Your task to perform on an android device: check android version Image 0: 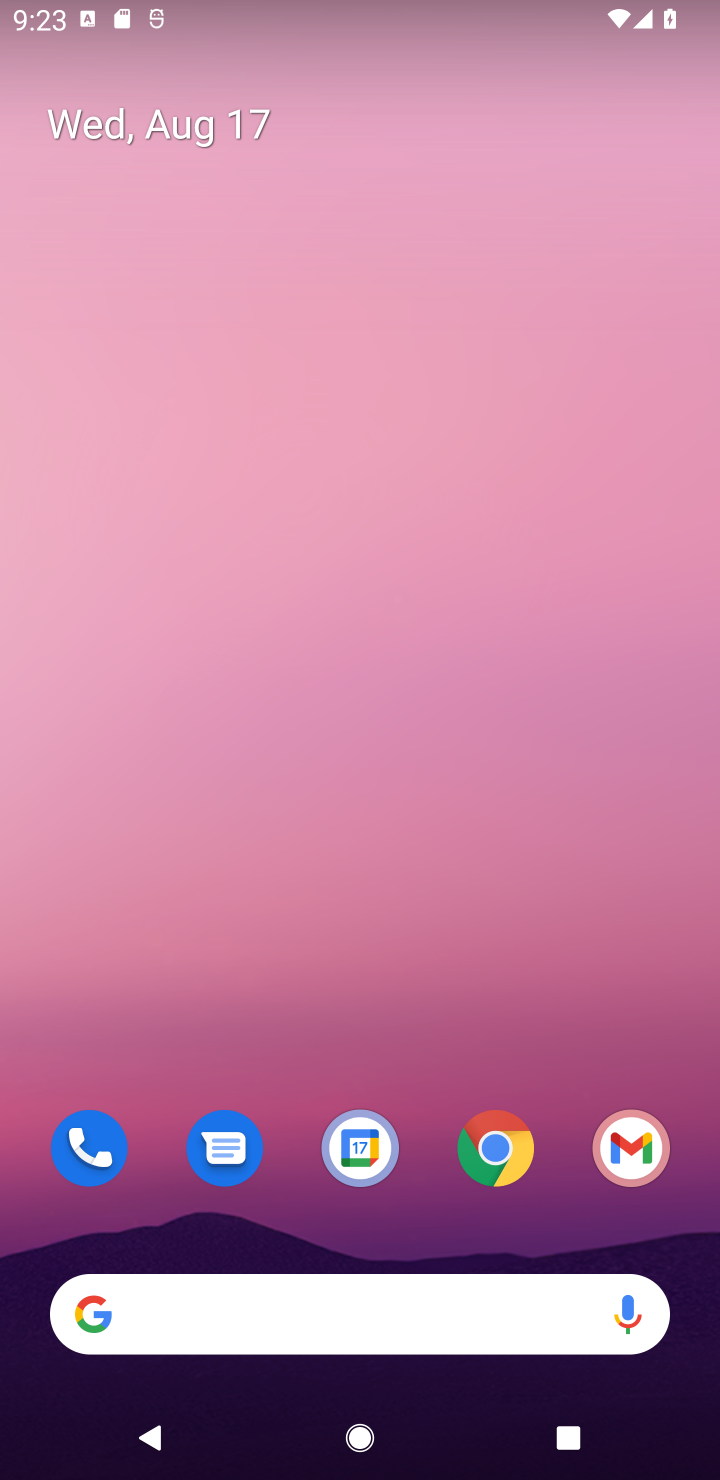
Step 0: click (495, 1143)
Your task to perform on an android device: check android version Image 1: 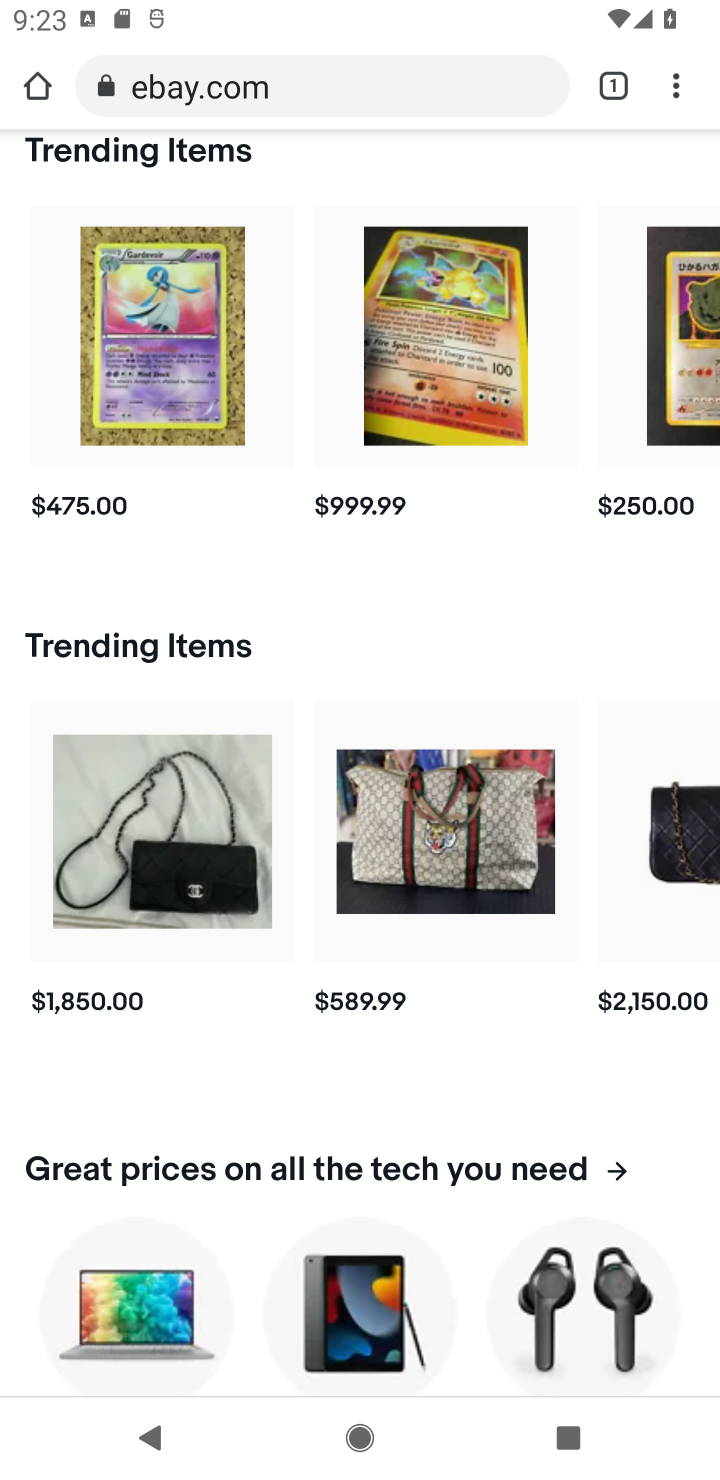
Step 1: press home button
Your task to perform on an android device: check android version Image 2: 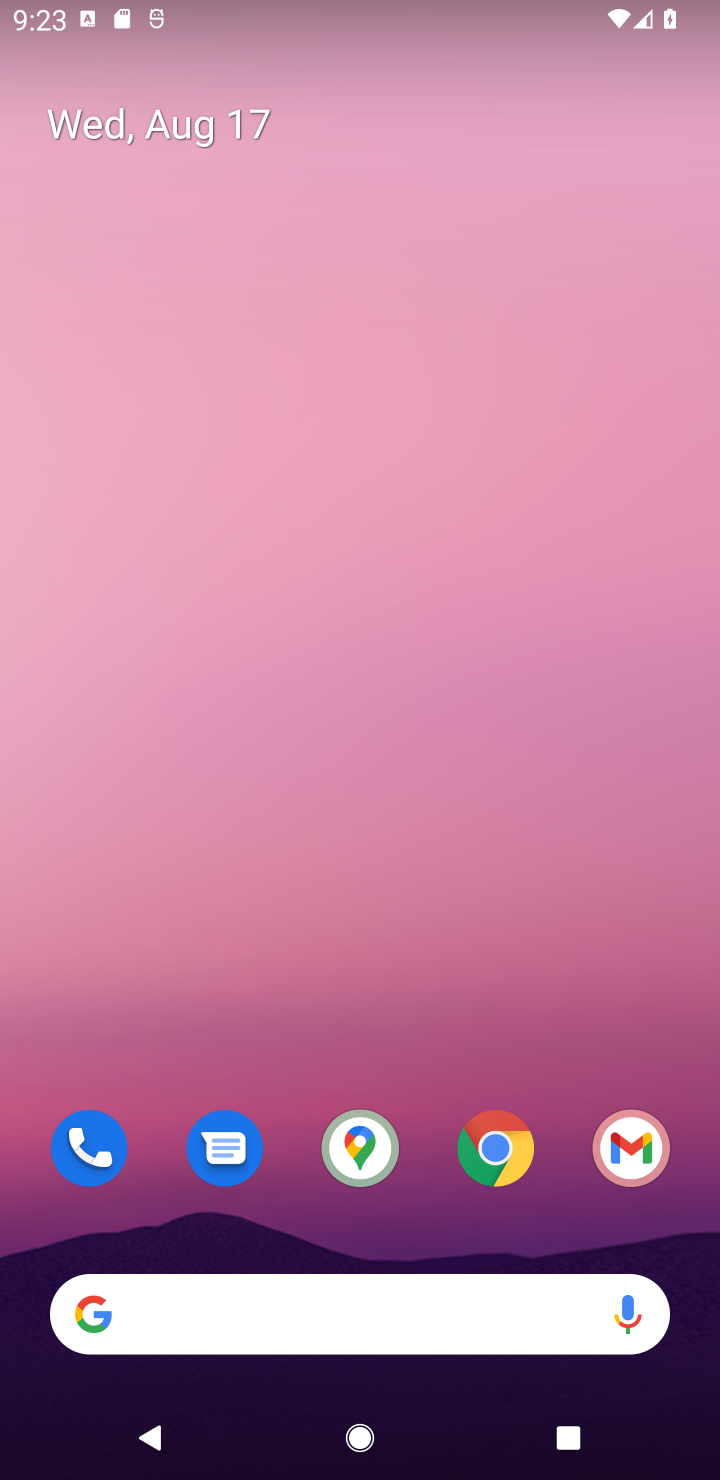
Step 2: drag from (559, 1216) to (621, 185)
Your task to perform on an android device: check android version Image 3: 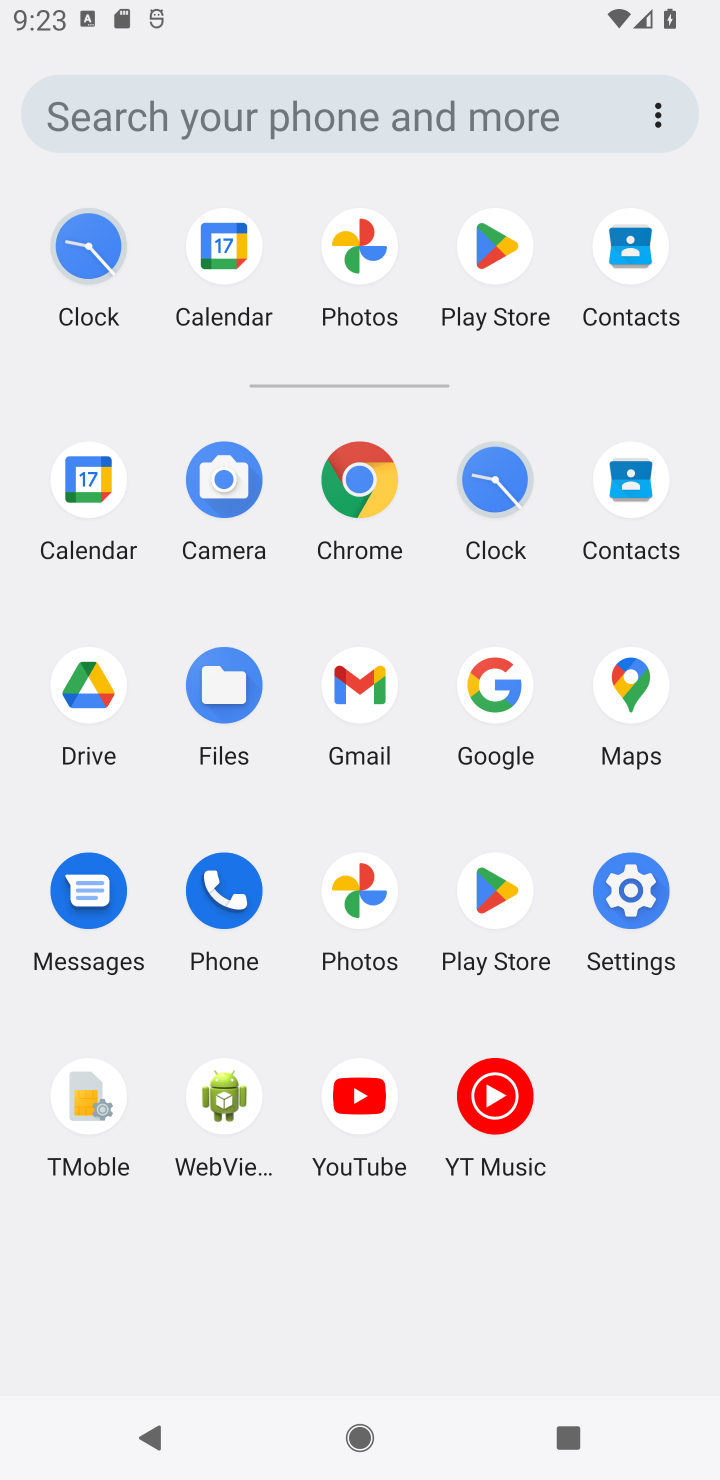
Step 3: click (636, 892)
Your task to perform on an android device: check android version Image 4: 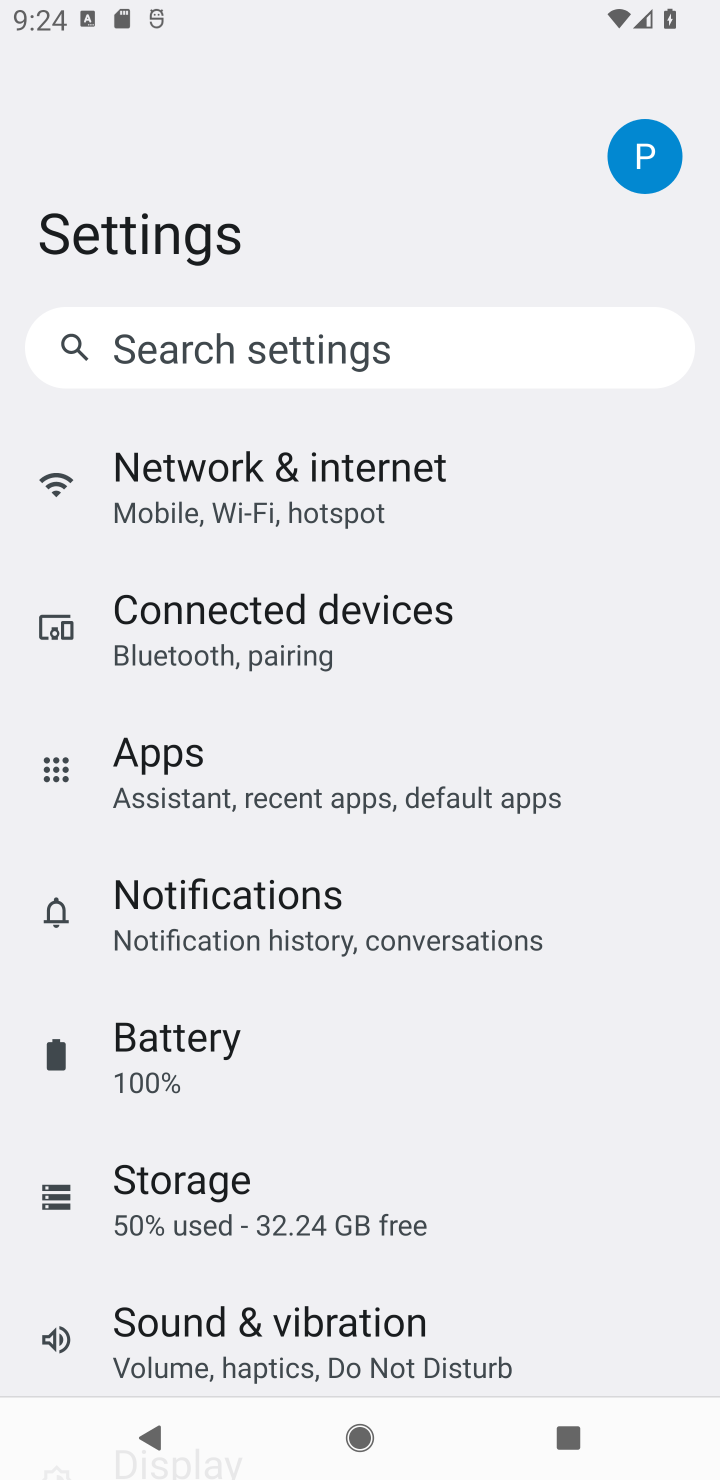
Step 4: drag from (557, 1301) to (536, 184)
Your task to perform on an android device: check android version Image 5: 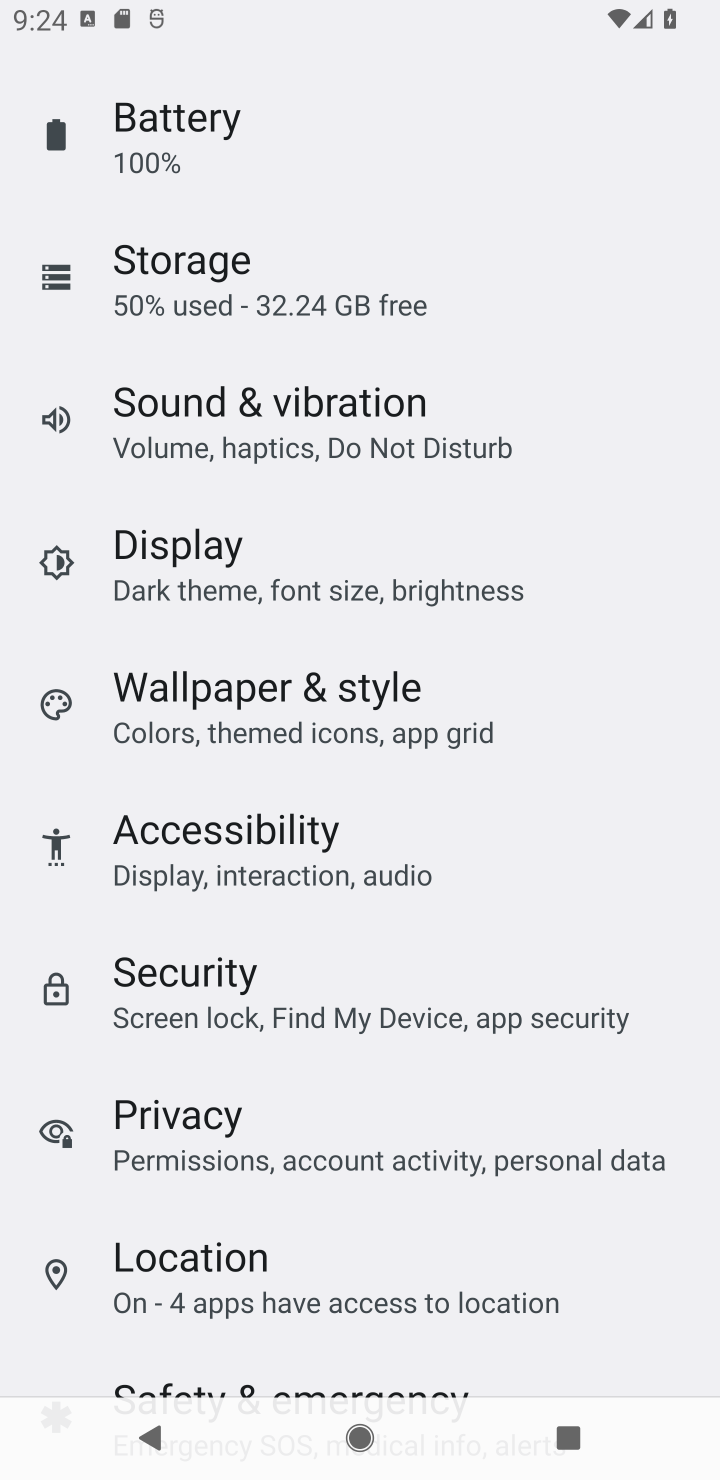
Step 5: drag from (610, 1352) to (579, 285)
Your task to perform on an android device: check android version Image 6: 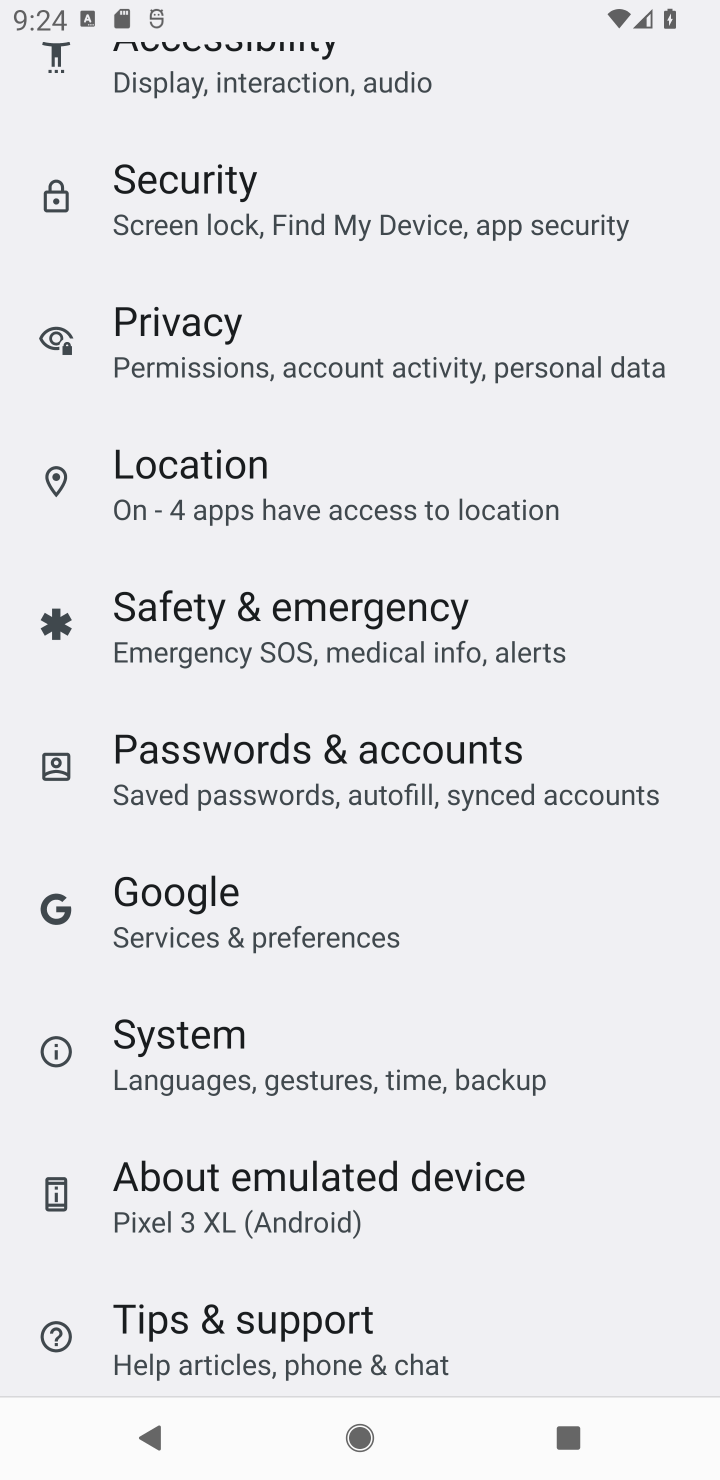
Step 6: click (298, 1175)
Your task to perform on an android device: check android version Image 7: 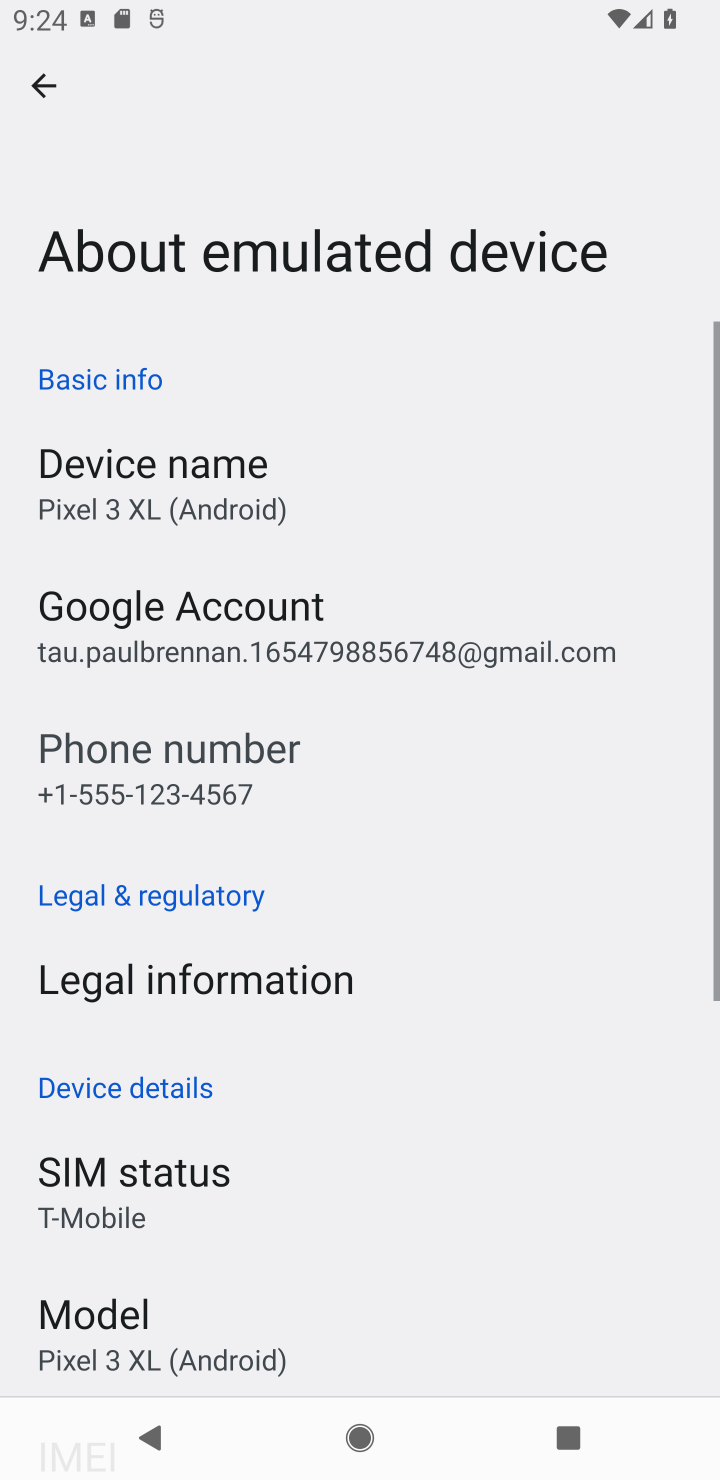
Step 7: drag from (505, 1187) to (534, 298)
Your task to perform on an android device: check android version Image 8: 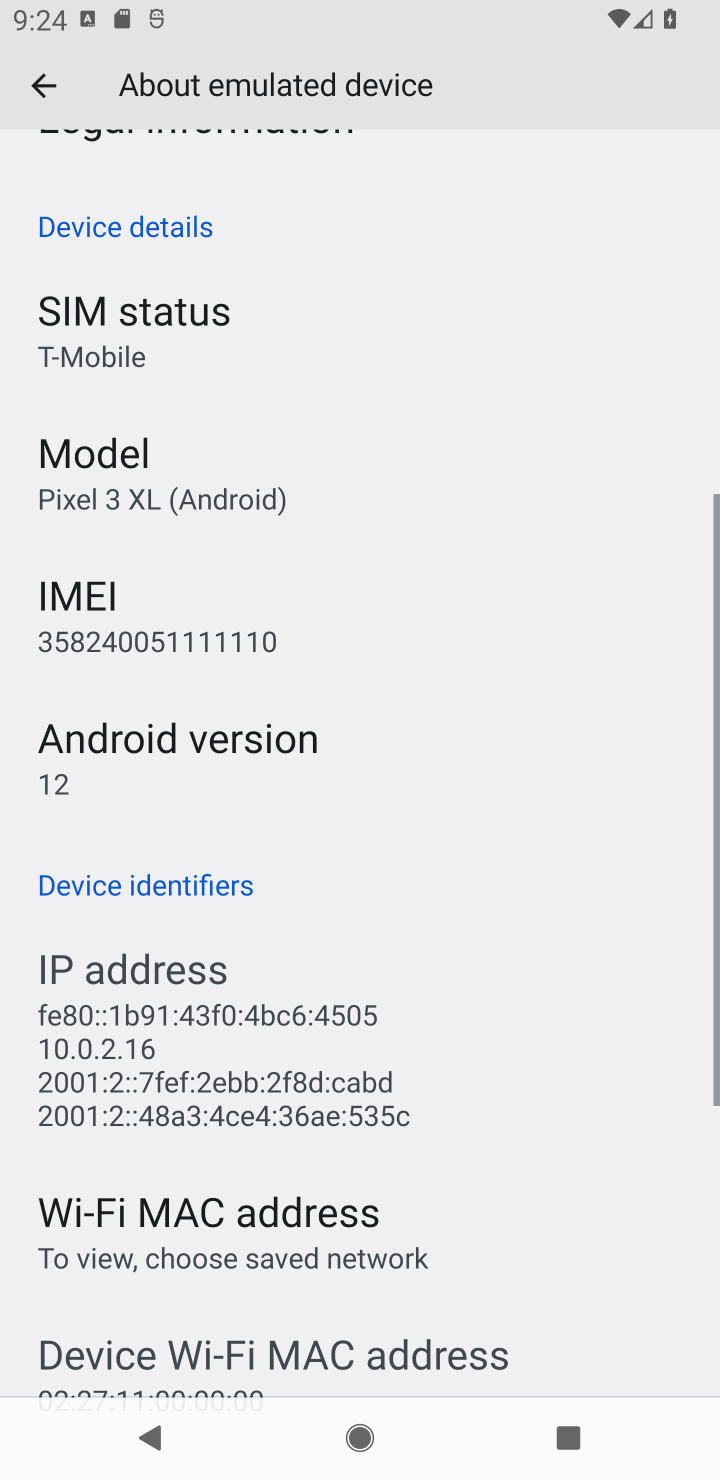
Step 8: click (129, 735)
Your task to perform on an android device: check android version Image 9: 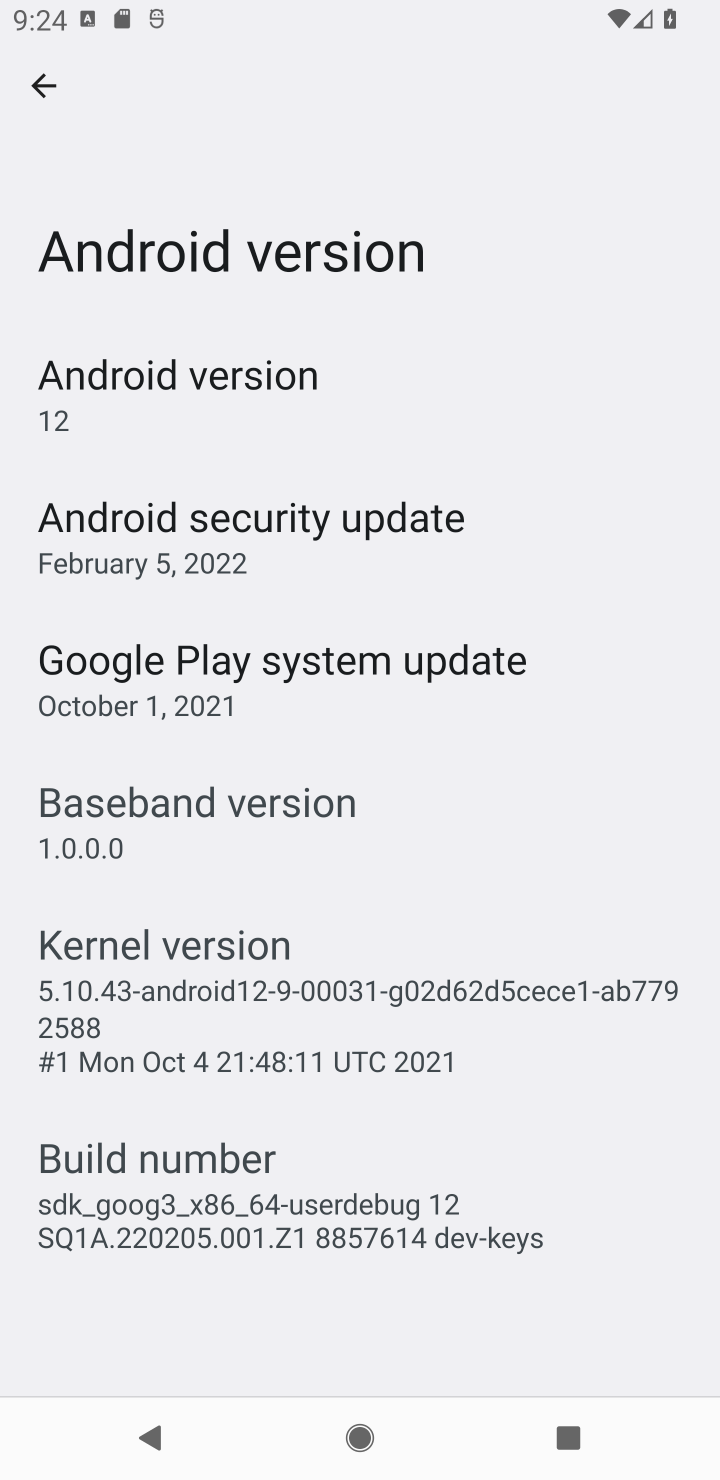
Step 9: click (161, 397)
Your task to perform on an android device: check android version Image 10: 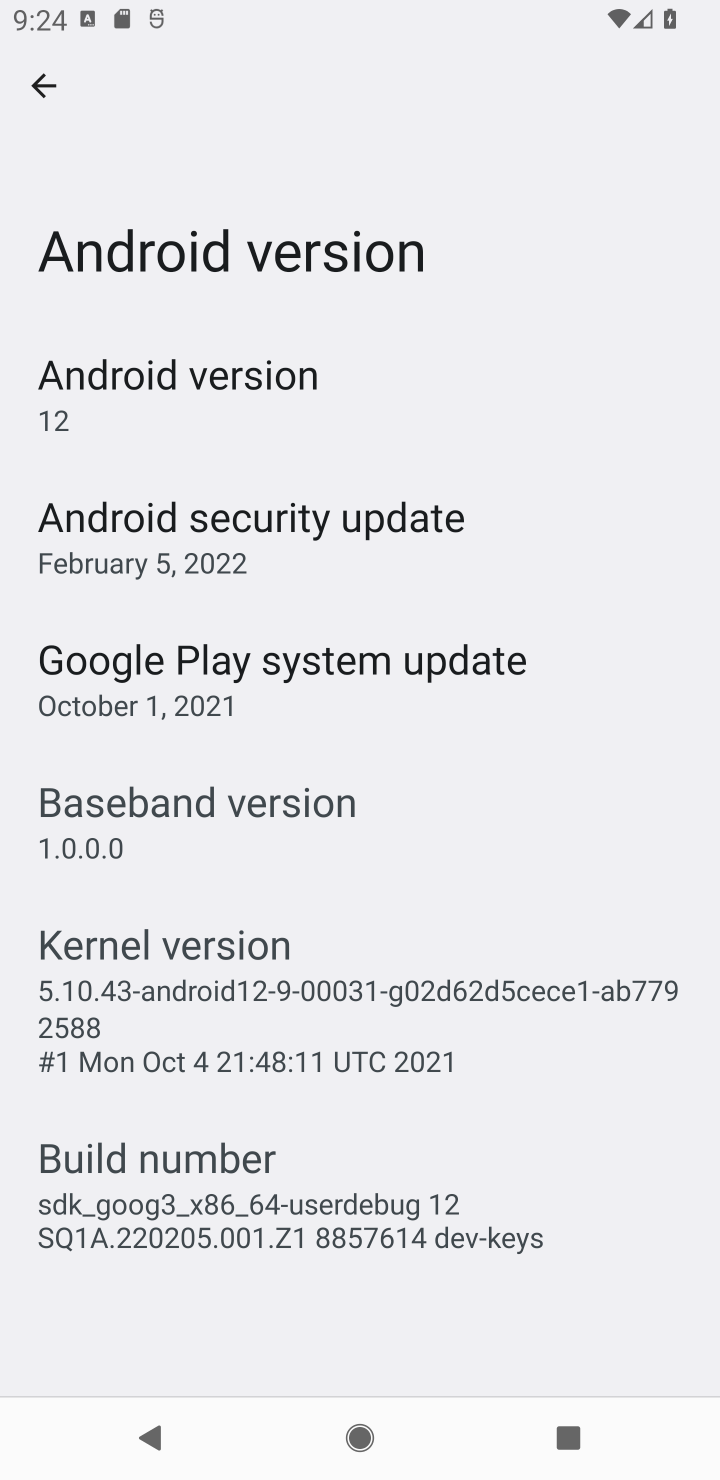
Step 10: task complete